Your task to perform on an android device: Go to Yahoo.com Image 0: 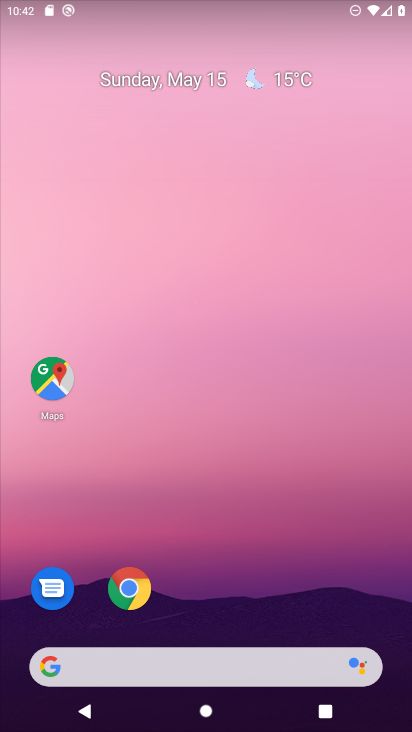
Step 0: click (139, 597)
Your task to perform on an android device: Go to Yahoo.com Image 1: 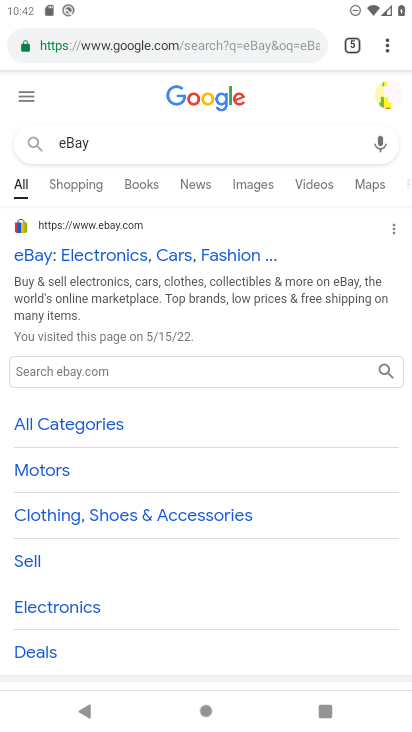
Step 1: click (226, 45)
Your task to perform on an android device: Go to Yahoo.com Image 2: 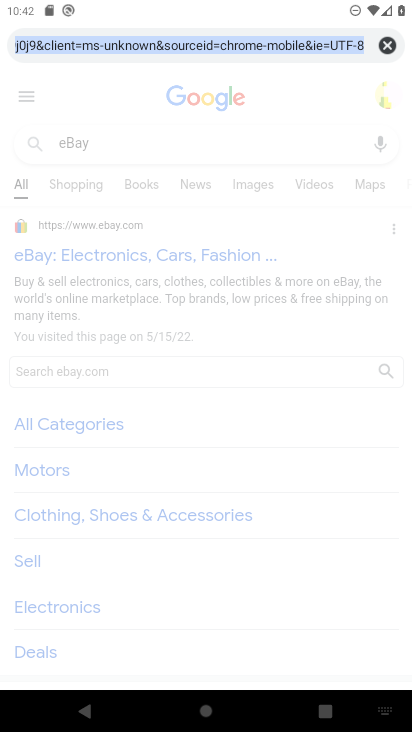
Step 2: type "Yahoo.com"
Your task to perform on an android device: Go to Yahoo.com Image 3: 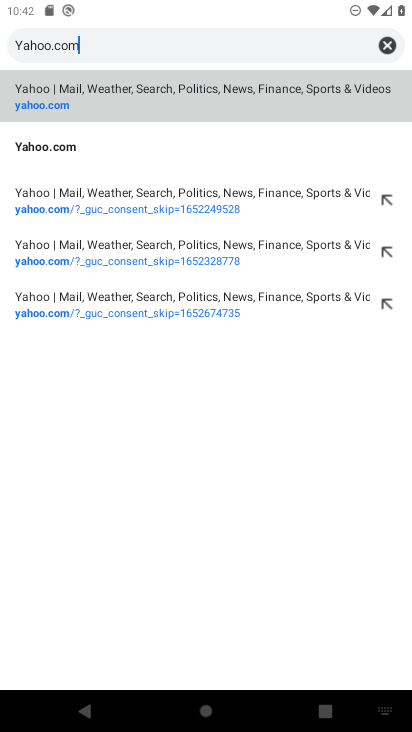
Step 3: click (112, 93)
Your task to perform on an android device: Go to Yahoo.com Image 4: 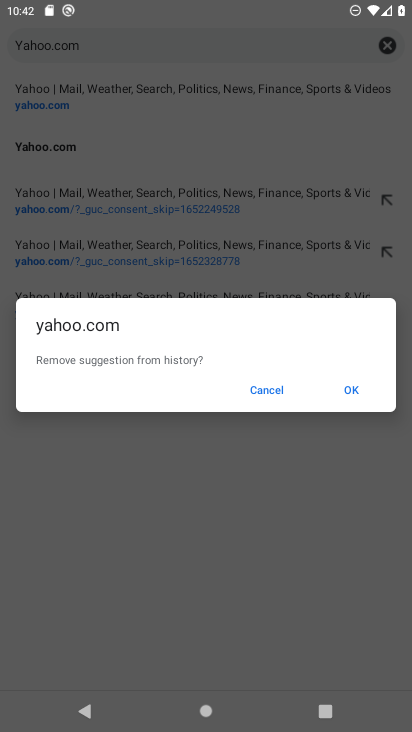
Step 4: click (273, 387)
Your task to perform on an android device: Go to Yahoo.com Image 5: 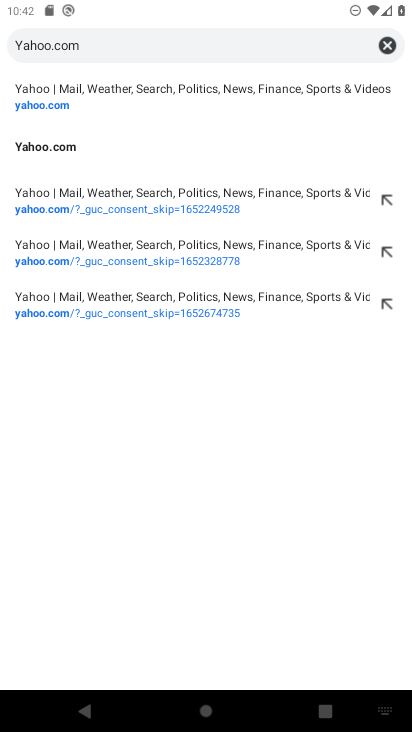
Step 5: click (79, 144)
Your task to perform on an android device: Go to Yahoo.com Image 6: 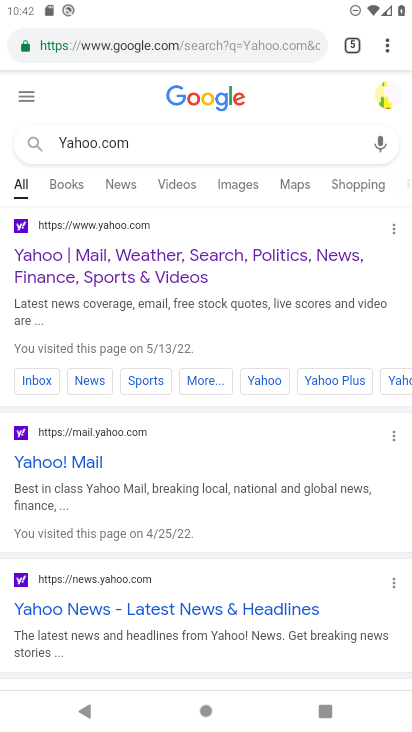
Step 6: task complete